Your task to perform on an android device: Open sound settings Image 0: 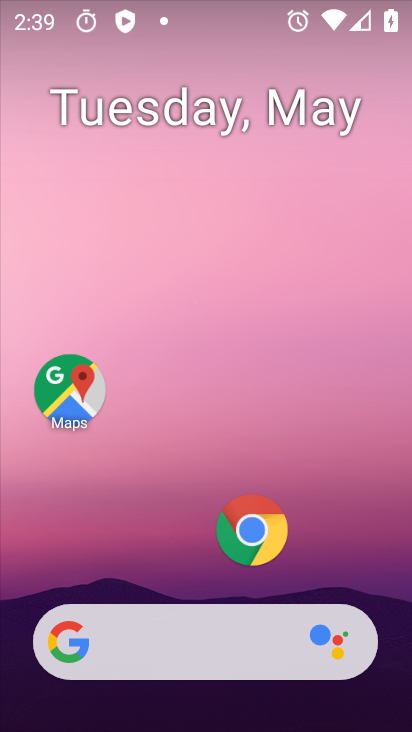
Step 0: drag from (224, 598) to (139, 7)
Your task to perform on an android device: Open sound settings Image 1: 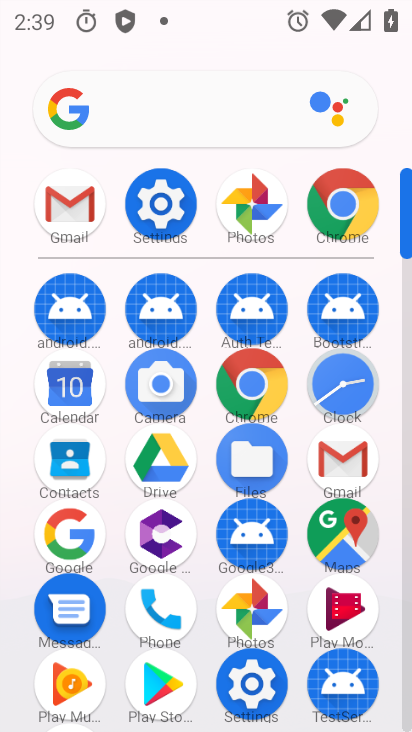
Step 1: click (166, 201)
Your task to perform on an android device: Open sound settings Image 2: 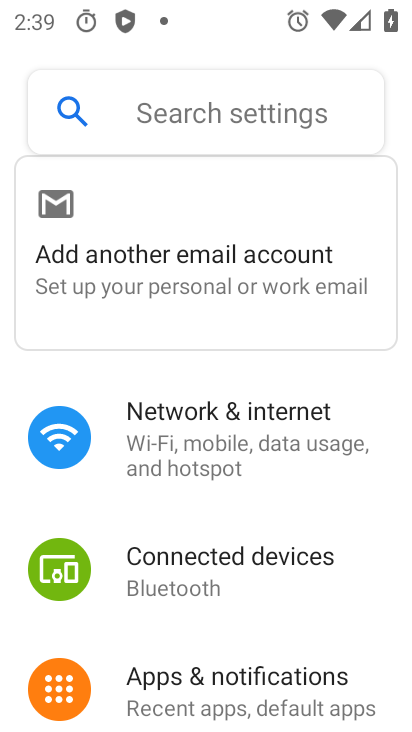
Step 2: drag from (312, 589) to (254, 40)
Your task to perform on an android device: Open sound settings Image 3: 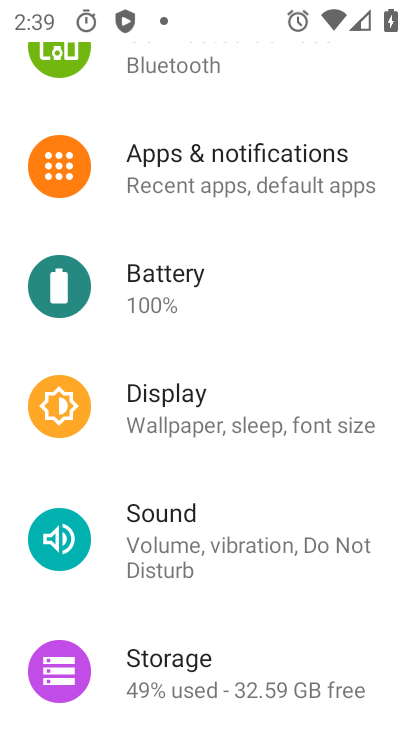
Step 3: click (241, 517)
Your task to perform on an android device: Open sound settings Image 4: 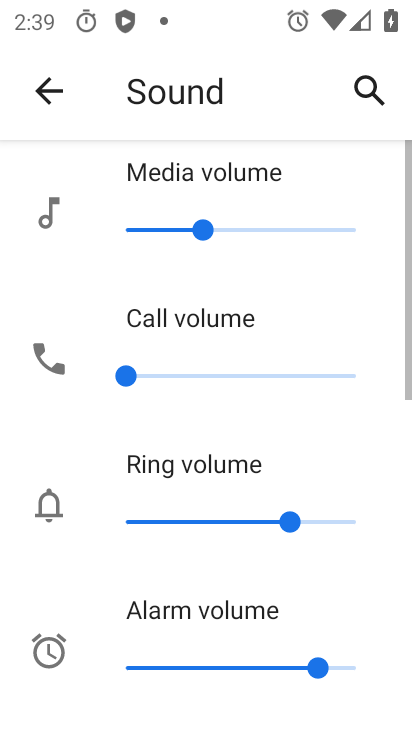
Step 4: task complete